Your task to perform on an android device: star an email in the gmail app Image 0: 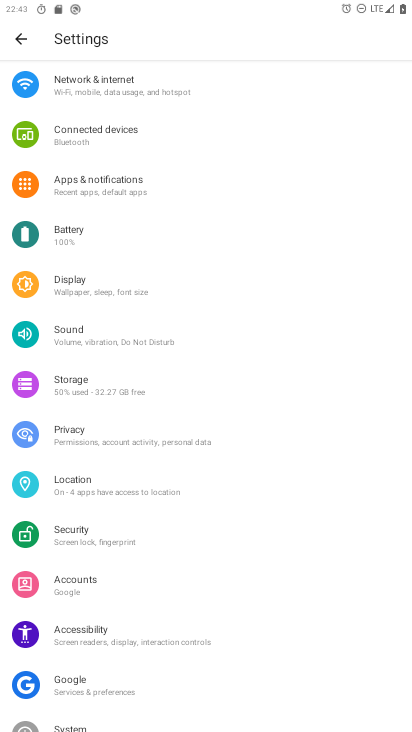
Step 0: press home button
Your task to perform on an android device: star an email in the gmail app Image 1: 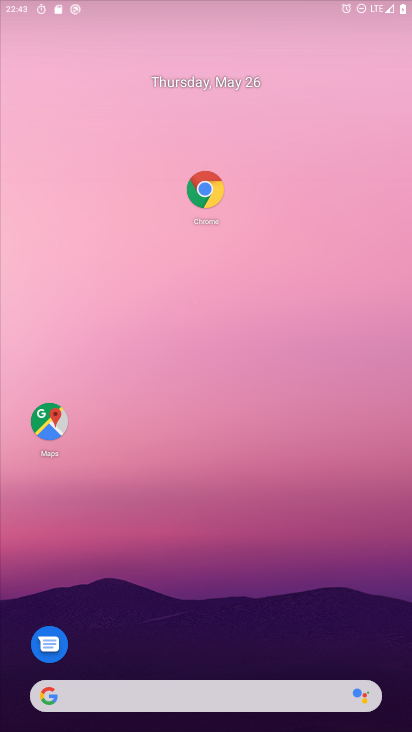
Step 1: drag from (190, 648) to (144, 1)
Your task to perform on an android device: star an email in the gmail app Image 2: 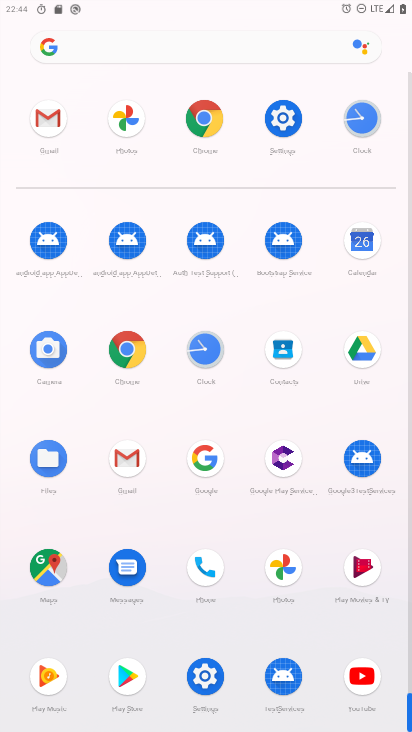
Step 2: click (130, 473)
Your task to perform on an android device: star an email in the gmail app Image 3: 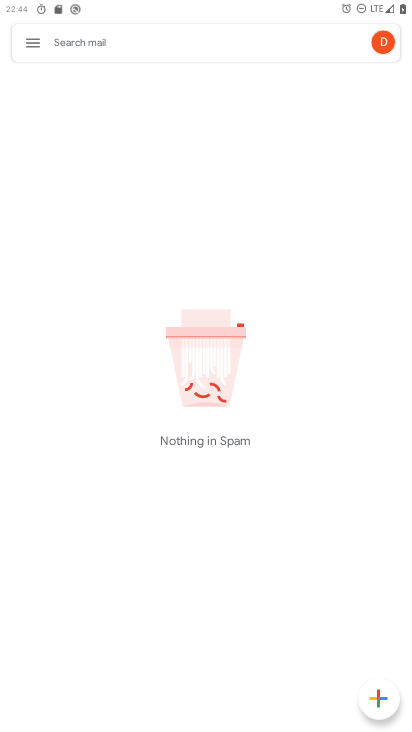
Step 3: click (36, 39)
Your task to perform on an android device: star an email in the gmail app Image 4: 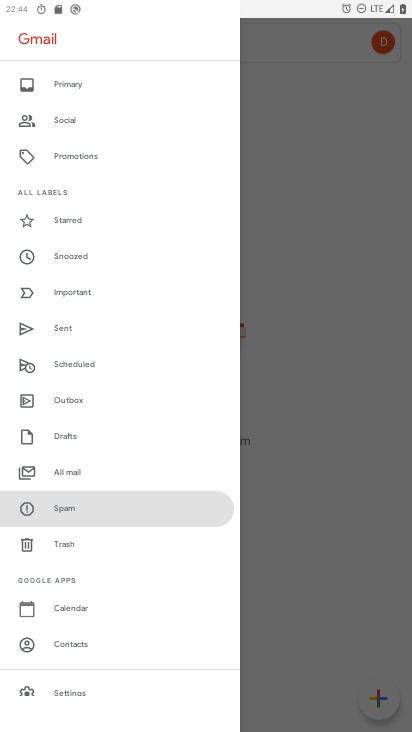
Step 4: click (80, 231)
Your task to perform on an android device: star an email in the gmail app Image 5: 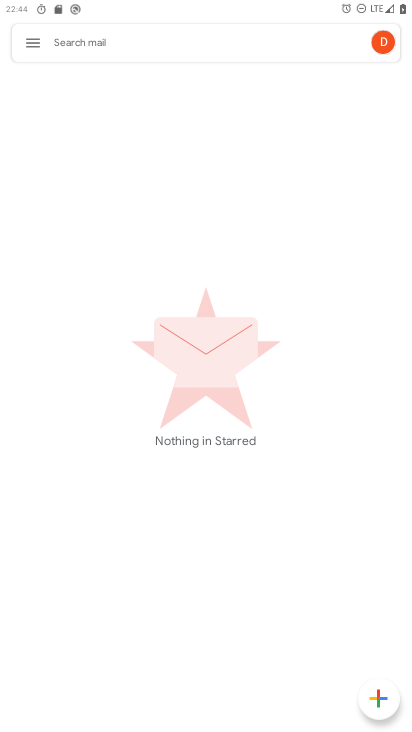
Step 5: task complete